Your task to perform on an android device: Open sound settings Image 0: 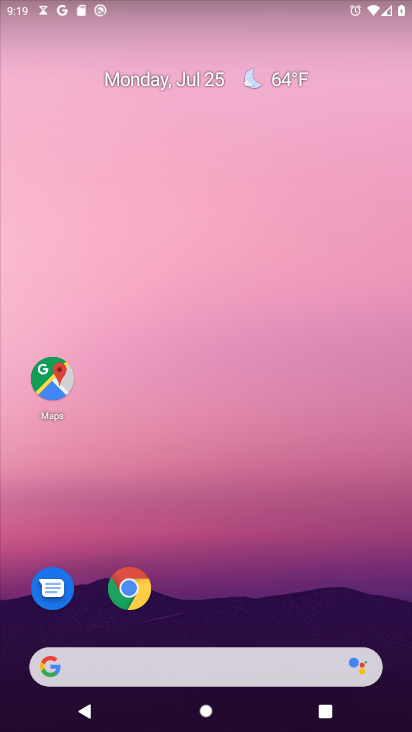
Step 0: drag from (221, 661) to (265, 178)
Your task to perform on an android device: Open sound settings Image 1: 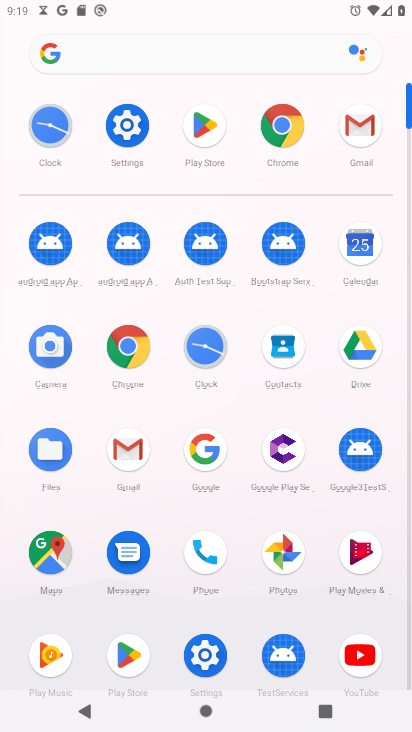
Step 1: click (113, 153)
Your task to perform on an android device: Open sound settings Image 2: 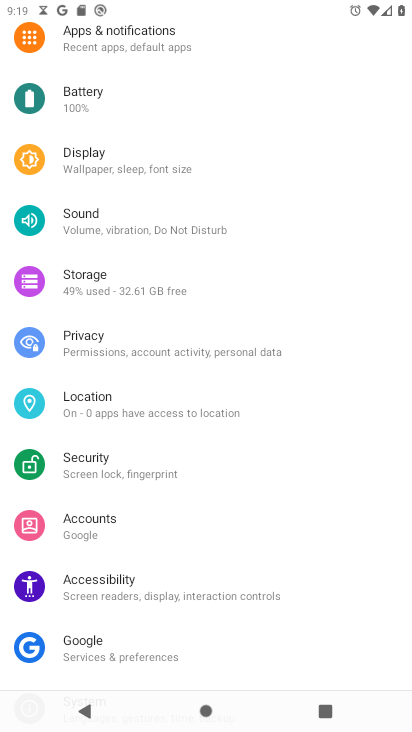
Step 2: click (88, 208)
Your task to perform on an android device: Open sound settings Image 3: 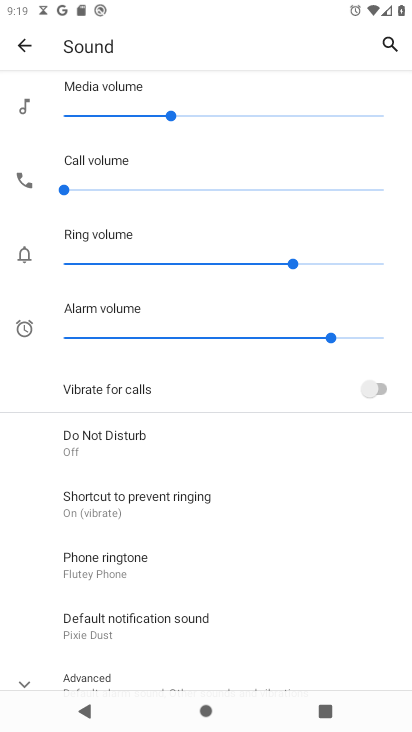
Step 3: task complete